Your task to perform on an android device: Open calendar and show me the fourth week of next month Image 0: 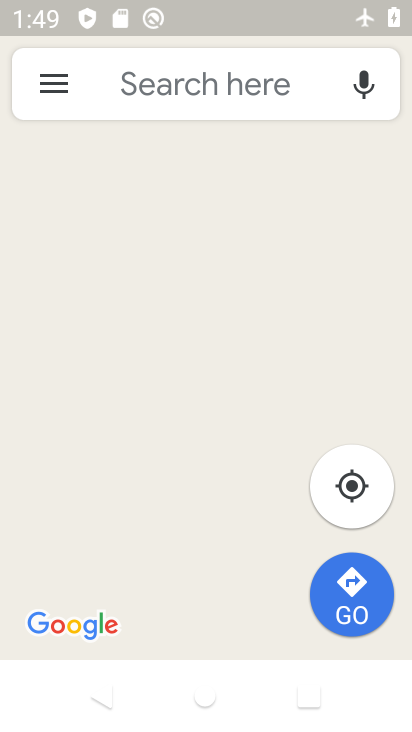
Step 0: press home button
Your task to perform on an android device: Open calendar and show me the fourth week of next month Image 1: 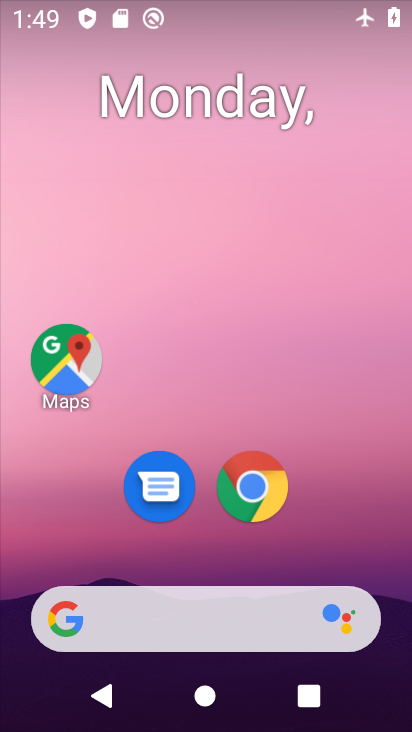
Step 1: drag from (207, 645) to (302, 276)
Your task to perform on an android device: Open calendar and show me the fourth week of next month Image 2: 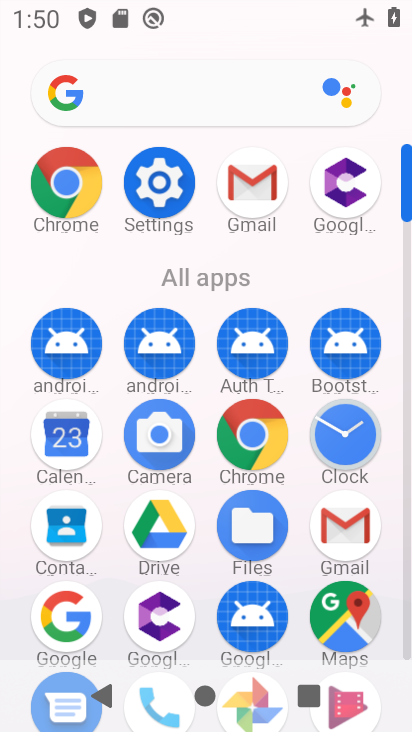
Step 2: drag from (112, 638) to (403, 289)
Your task to perform on an android device: Open calendar and show me the fourth week of next month Image 3: 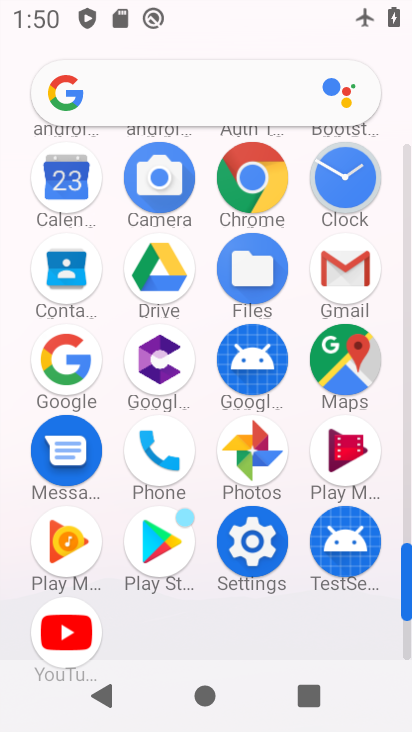
Step 3: drag from (320, 227) to (130, 548)
Your task to perform on an android device: Open calendar and show me the fourth week of next month Image 4: 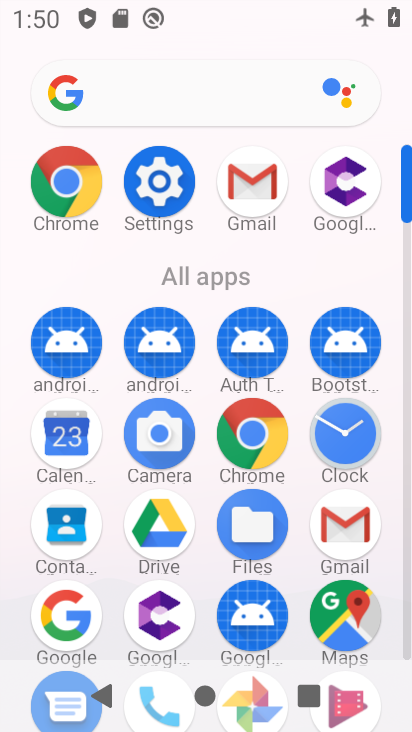
Step 4: click (67, 460)
Your task to perform on an android device: Open calendar and show me the fourth week of next month Image 5: 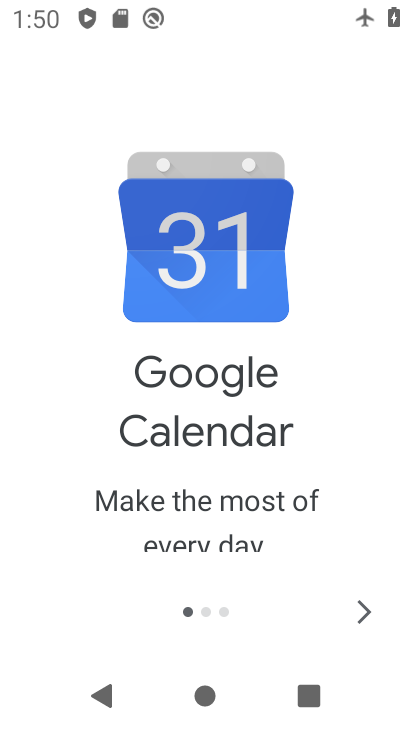
Step 5: click (232, 382)
Your task to perform on an android device: Open calendar and show me the fourth week of next month Image 6: 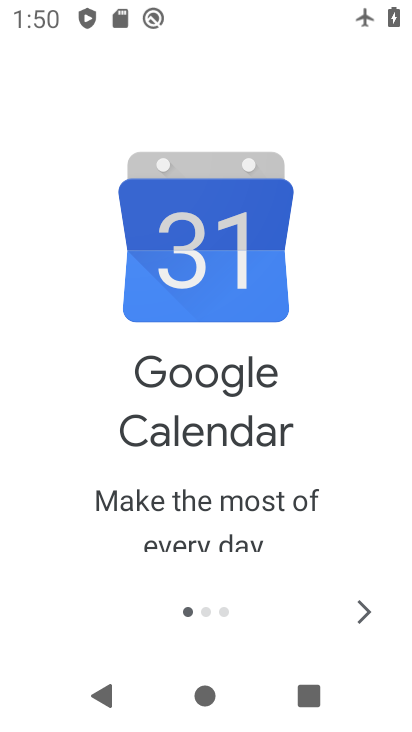
Step 6: click (365, 602)
Your task to perform on an android device: Open calendar and show me the fourth week of next month Image 7: 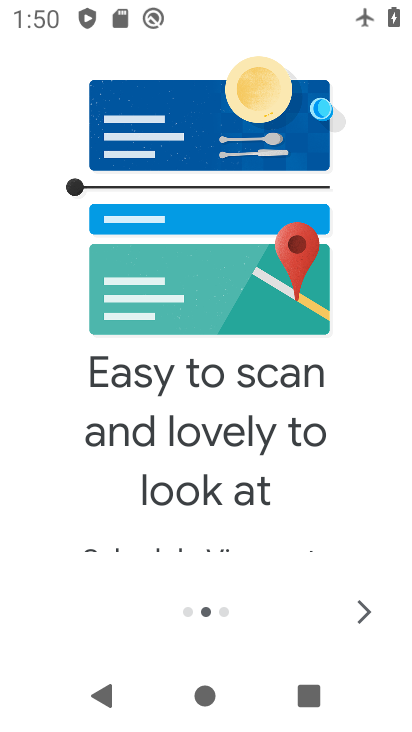
Step 7: press home button
Your task to perform on an android device: Open calendar and show me the fourth week of next month Image 8: 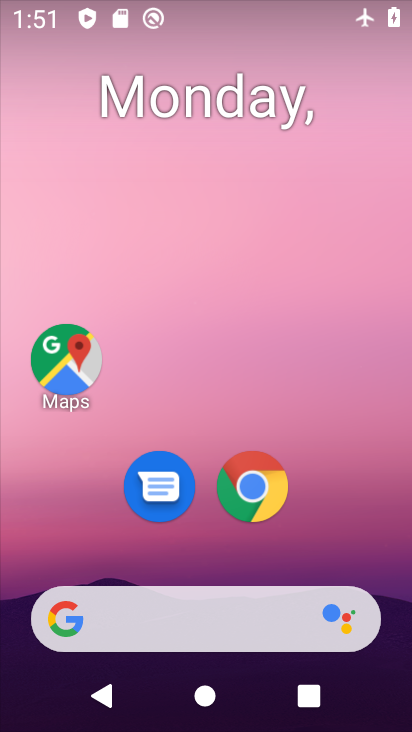
Step 8: drag from (240, 364) to (260, 129)
Your task to perform on an android device: Open calendar and show me the fourth week of next month Image 9: 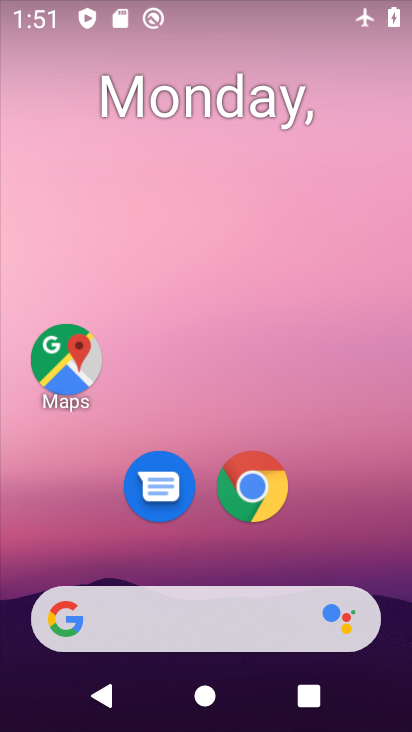
Step 9: drag from (269, 596) to (346, 25)
Your task to perform on an android device: Open calendar and show me the fourth week of next month Image 10: 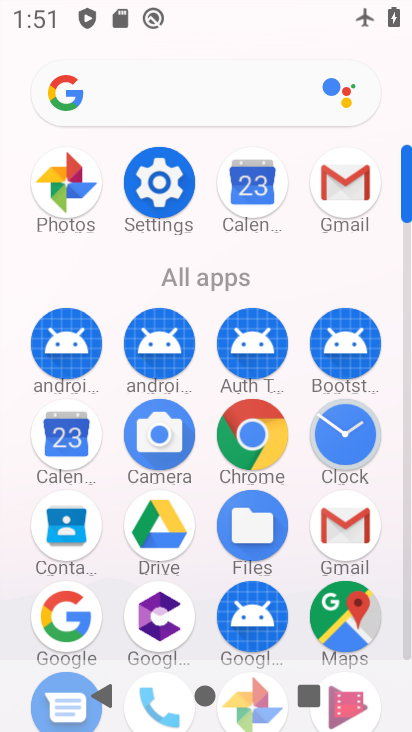
Step 10: click (60, 453)
Your task to perform on an android device: Open calendar and show me the fourth week of next month Image 11: 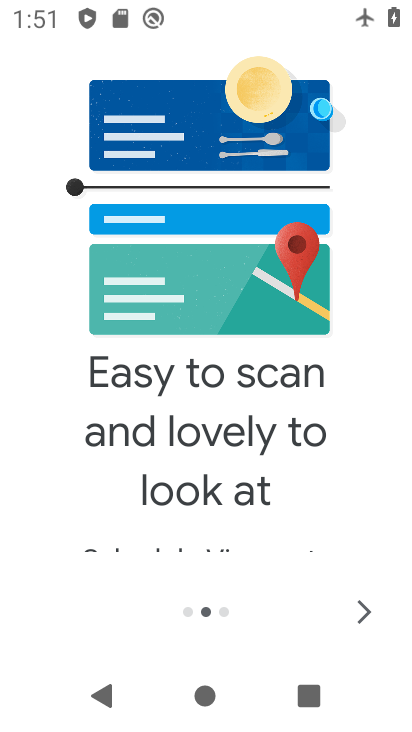
Step 11: click (370, 612)
Your task to perform on an android device: Open calendar and show me the fourth week of next month Image 12: 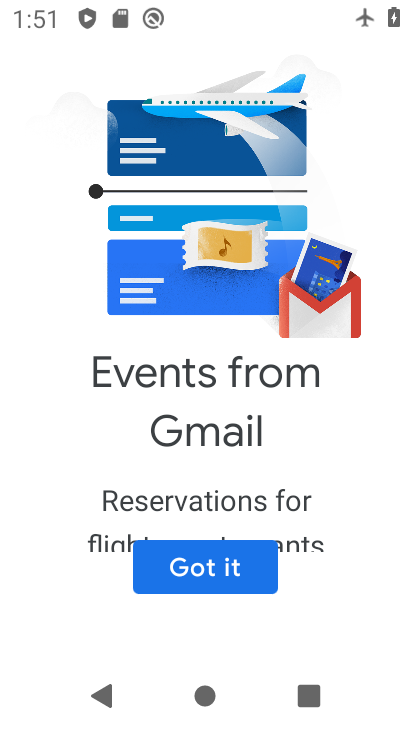
Step 12: click (252, 564)
Your task to perform on an android device: Open calendar and show me the fourth week of next month Image 13: 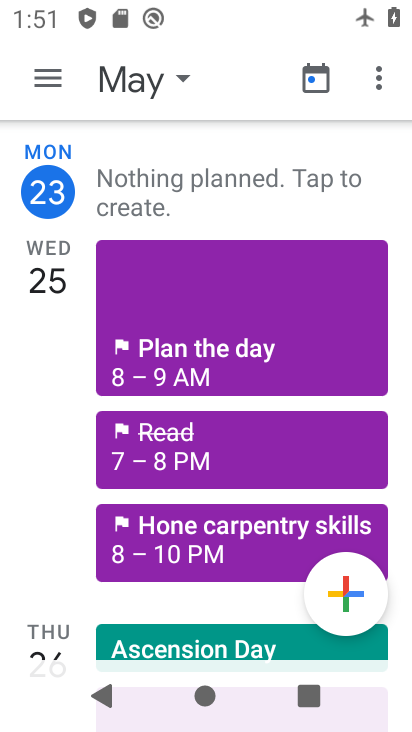
Step 13: task complete